Your task to perform on an android device: turn off javascript in the chrome app Image 0: 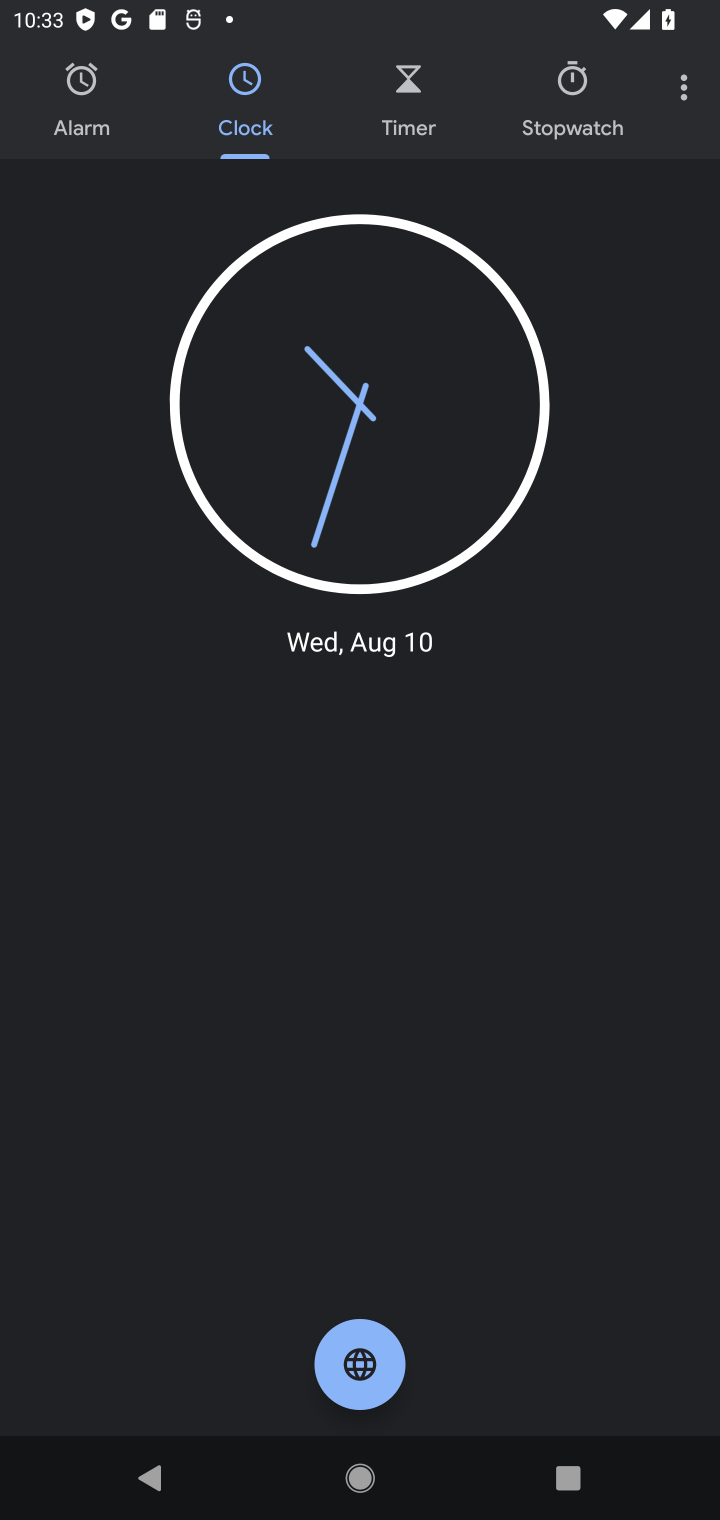
Step 0: press home button
Your task to perform on an android device: turn off javascript in the chrome app Image 1: 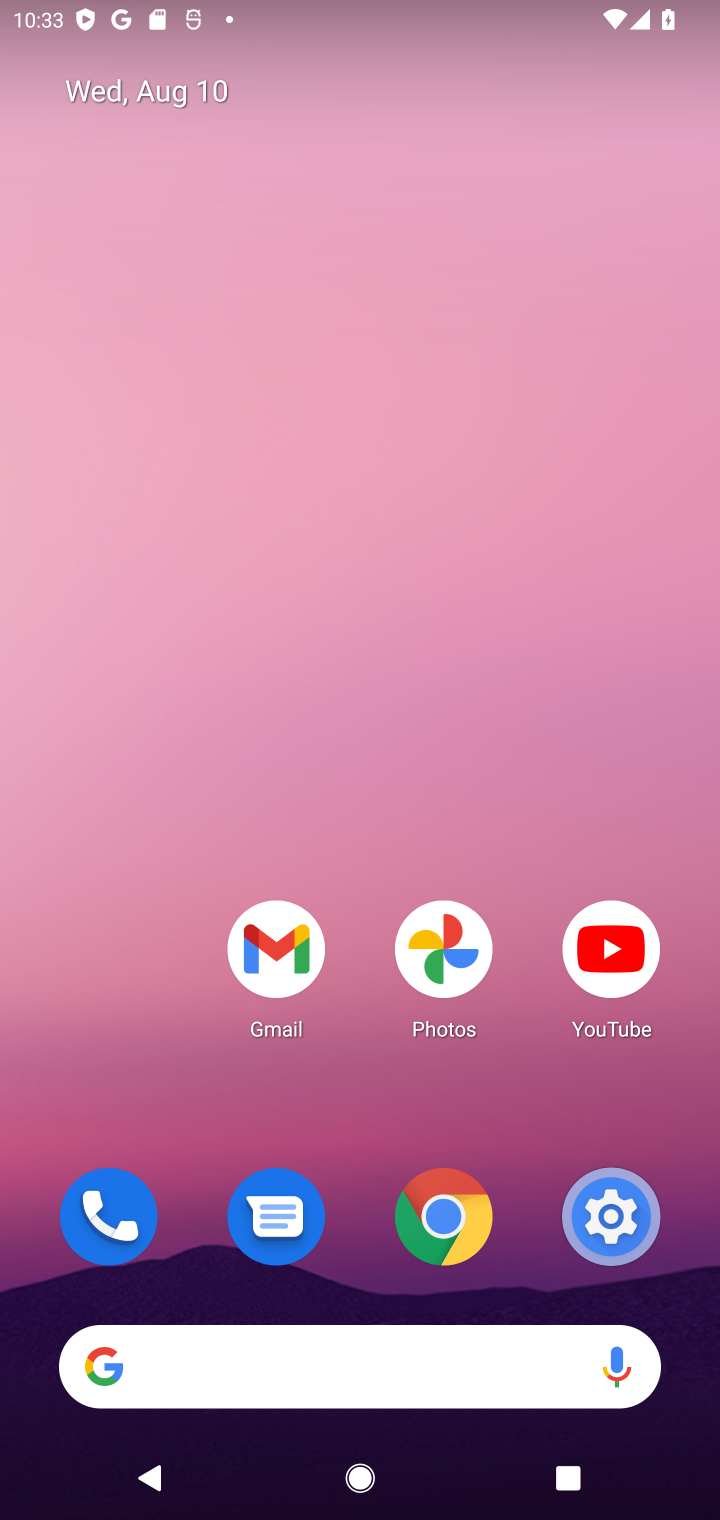
Step 1: click (444, 1213)
Your task to perform on an android device: turn off javascript in the chrome app Image 2: 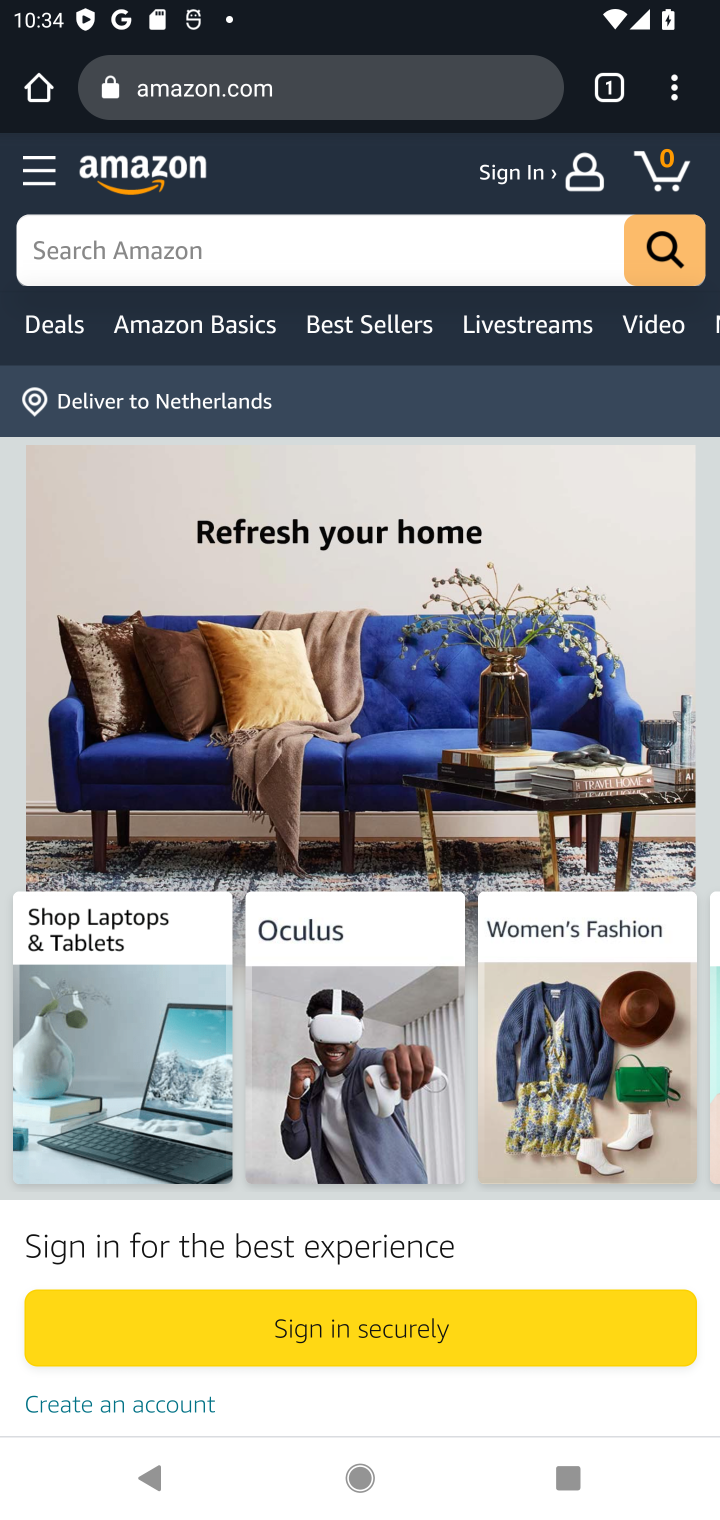
Step 2: click (664, 83)
Your task to perform on an android device: turn off javascript in the chrome app Image 3: 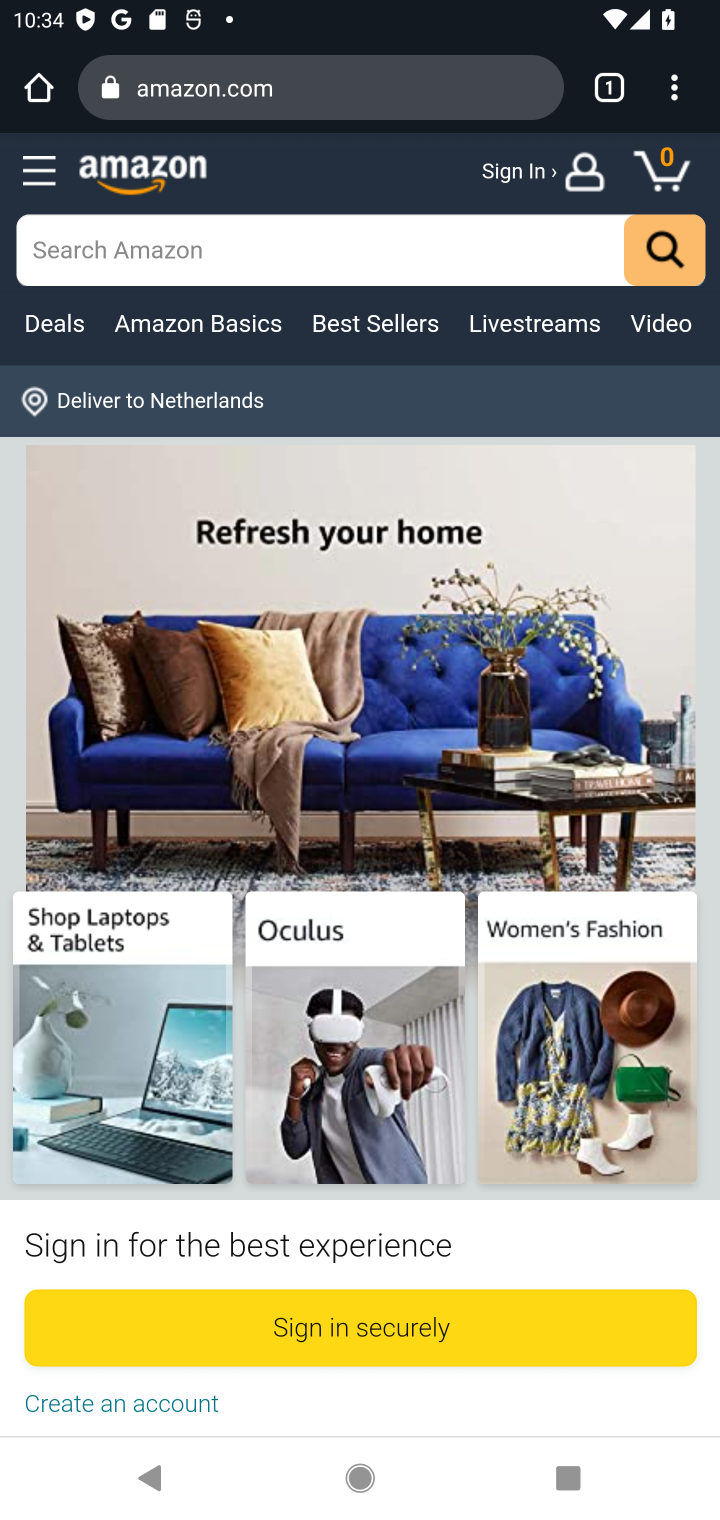
Step 3: click (664, 83)
Your task to perform on an android device: turn off javascript in the chrome app Image 4: 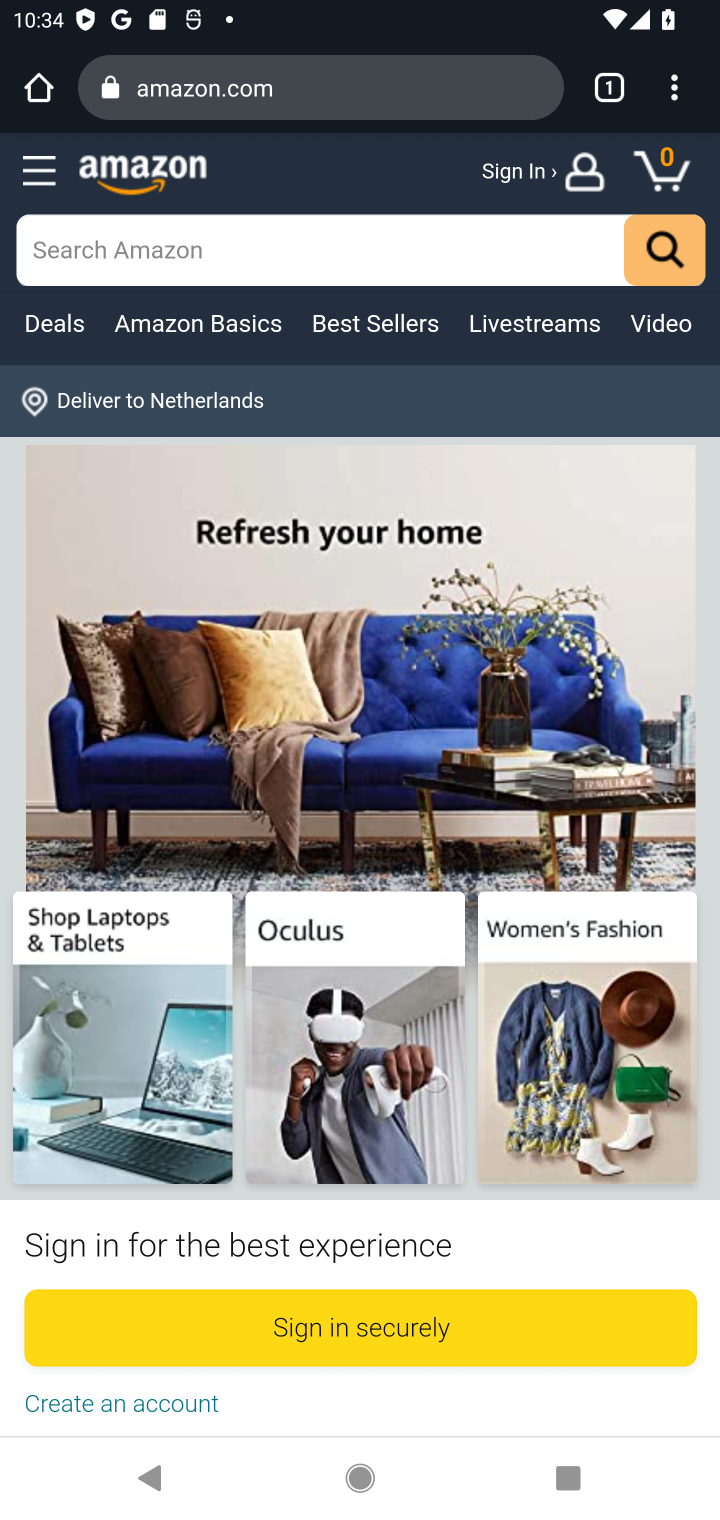
Step 4: click (670, 99)
Your task to perform on an android device: turn off javascript in the chrome app Image 5: 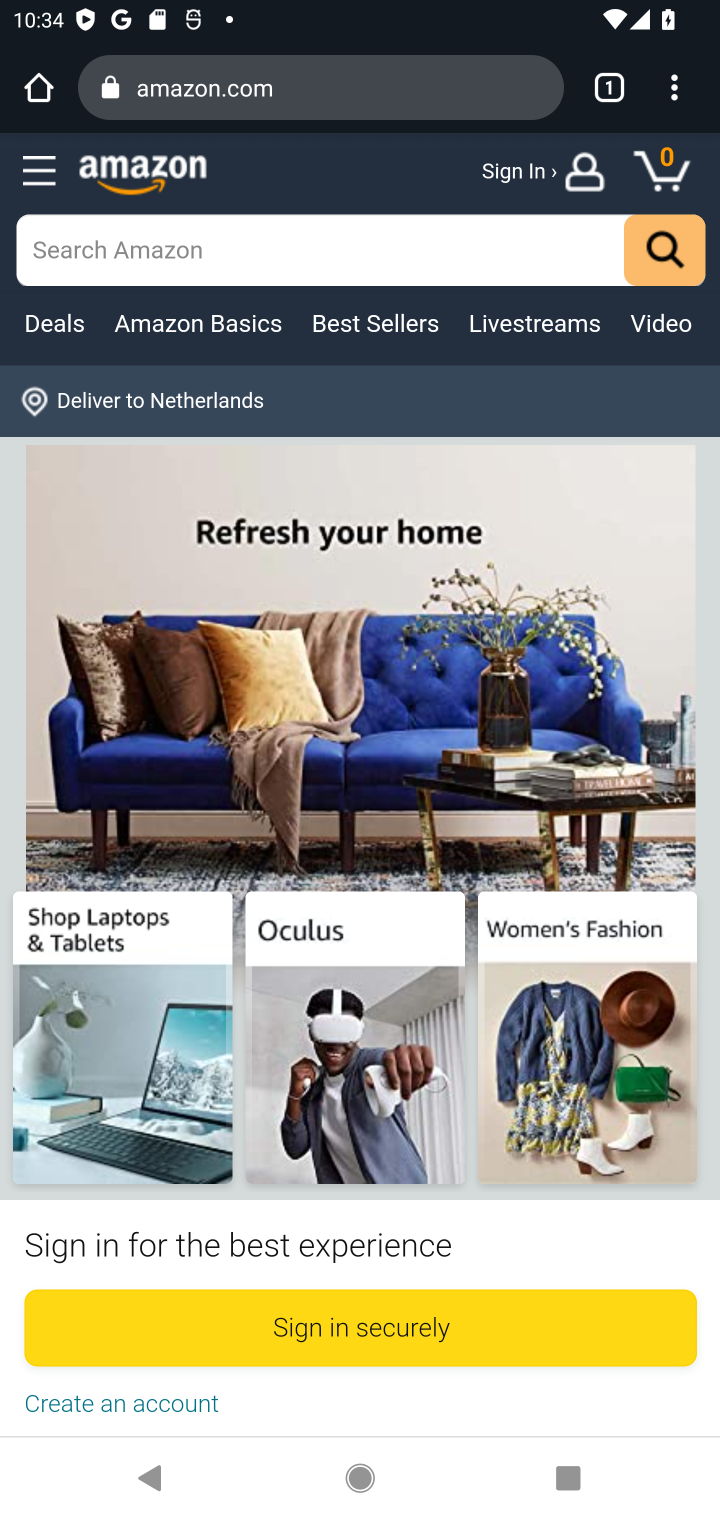
Step 5: click (679, 86)
Your task to perform on an android device: turn off javascript in the chrome app Image 6: 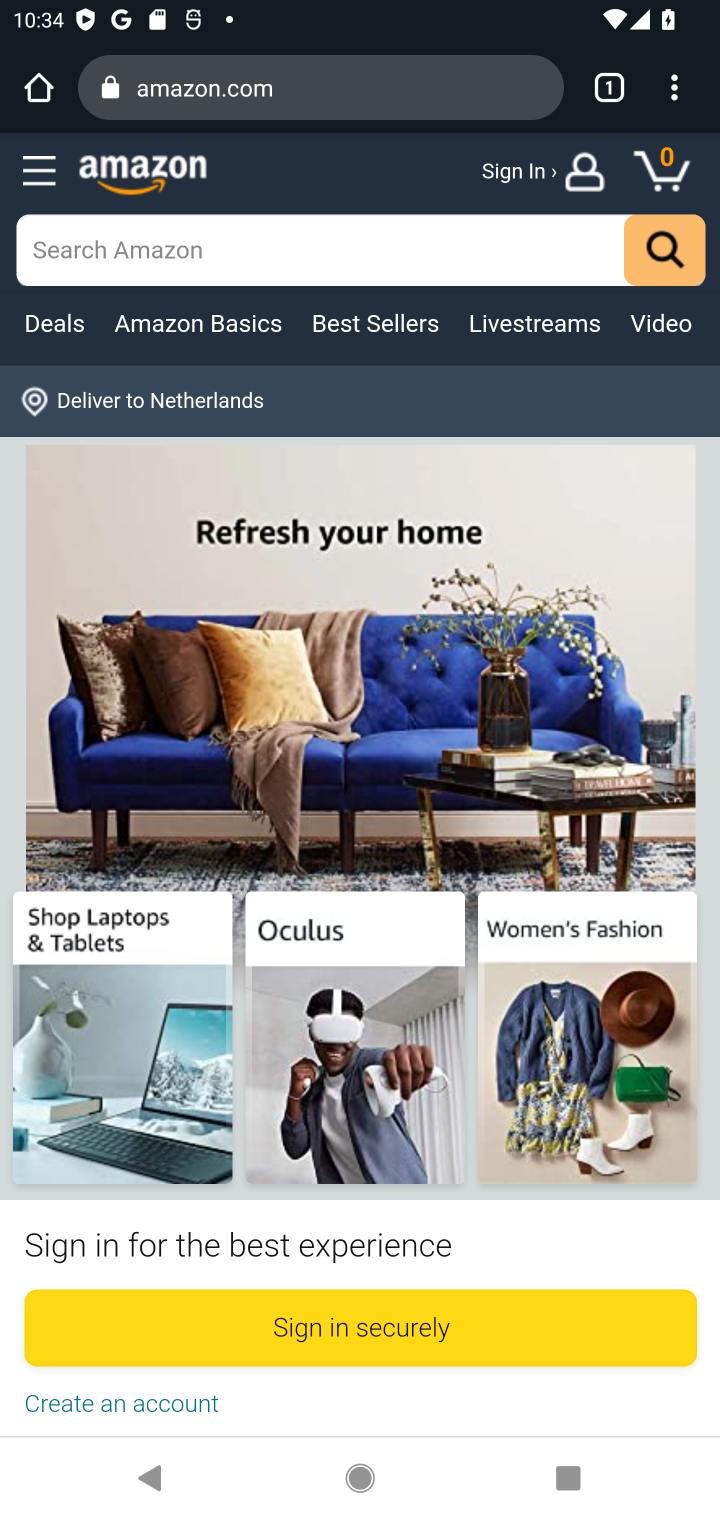
Step 6: click (679, 86)
Your task to perform on an android device: turn off javascript in the chrome app Image 7: 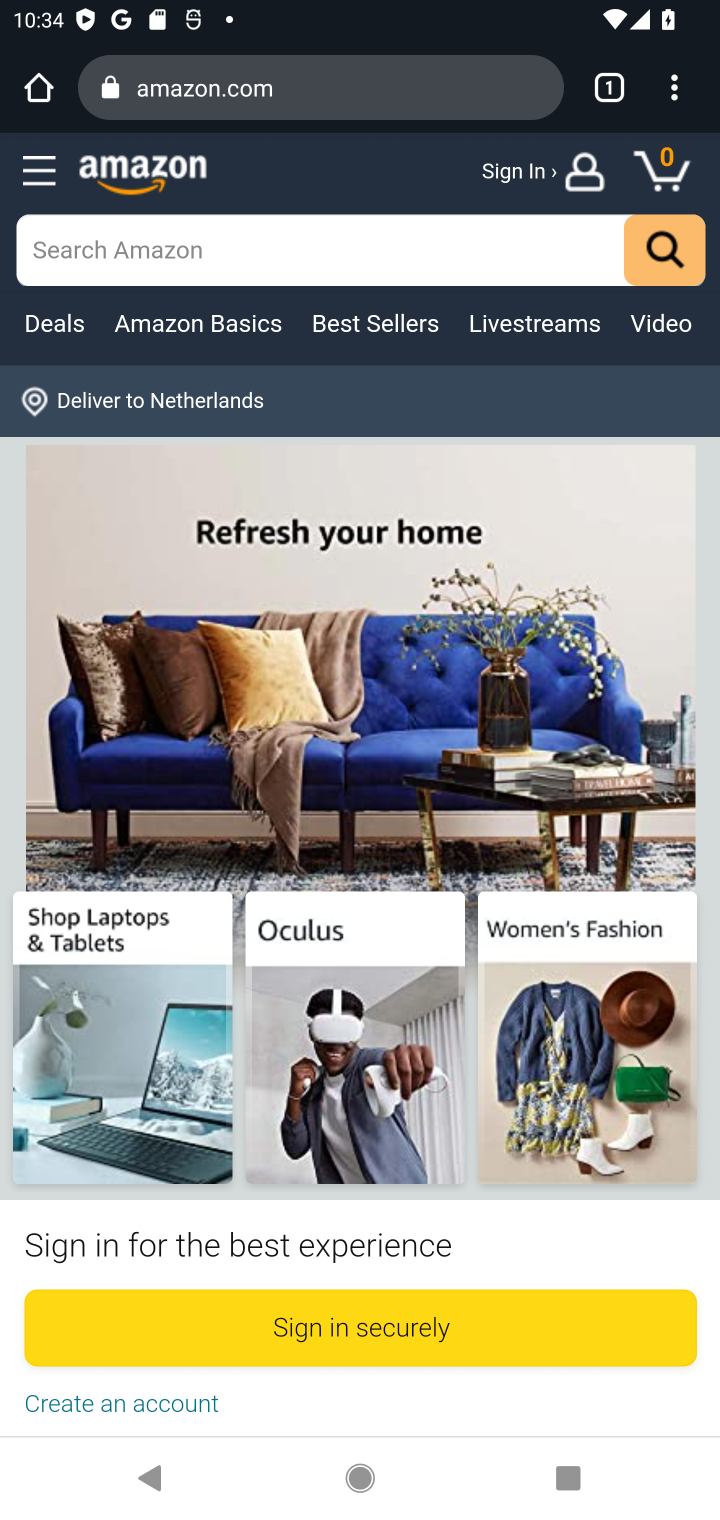
Step 7: click (679, 86)
Your task to perform on an android device: turn off javascript in the chrome app Image 8: 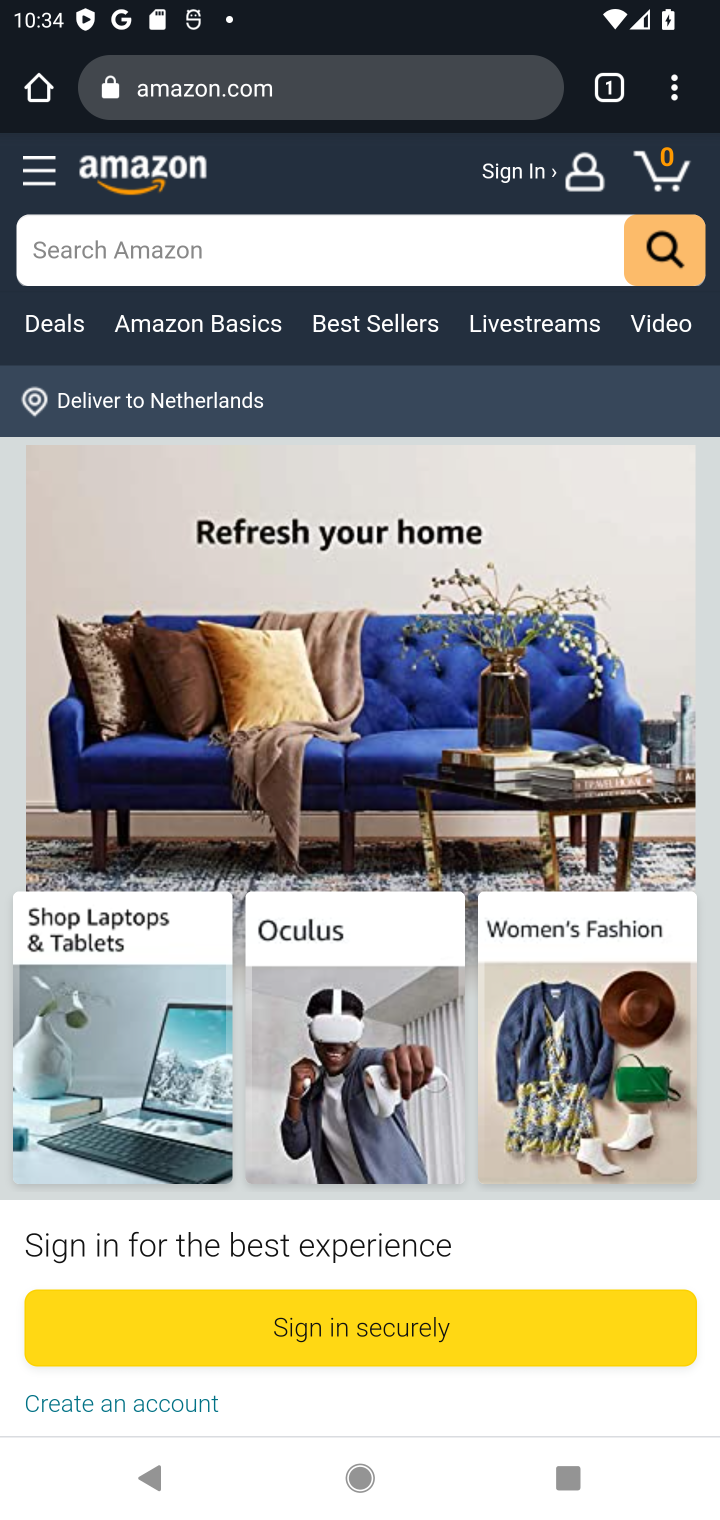
Step 8: click (679, 86)
Your task to perform on an android device: turn off javascript in the chrome app Image 9: 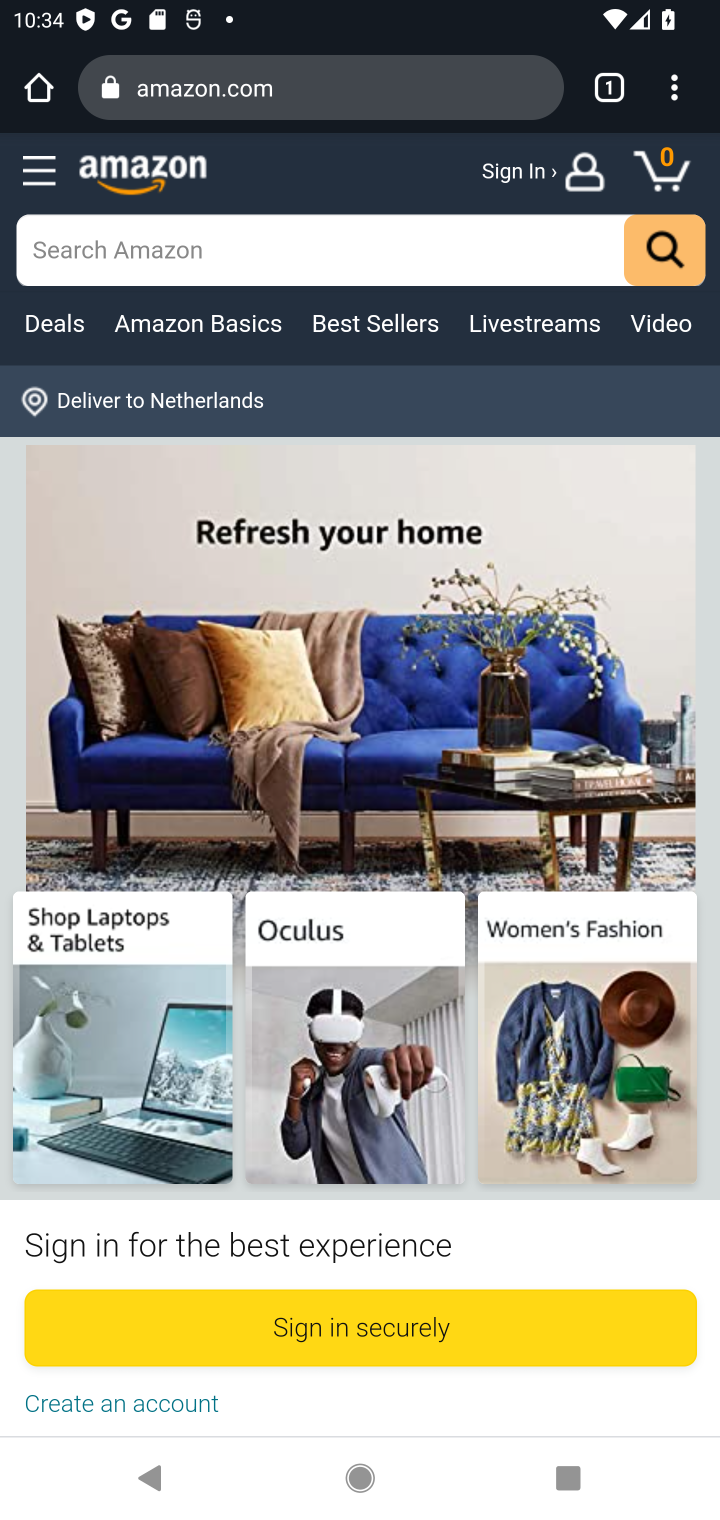
Step 9: click (679, 86)
Your task to perform on an android device: turn off javascript in the chrome app Image 10: 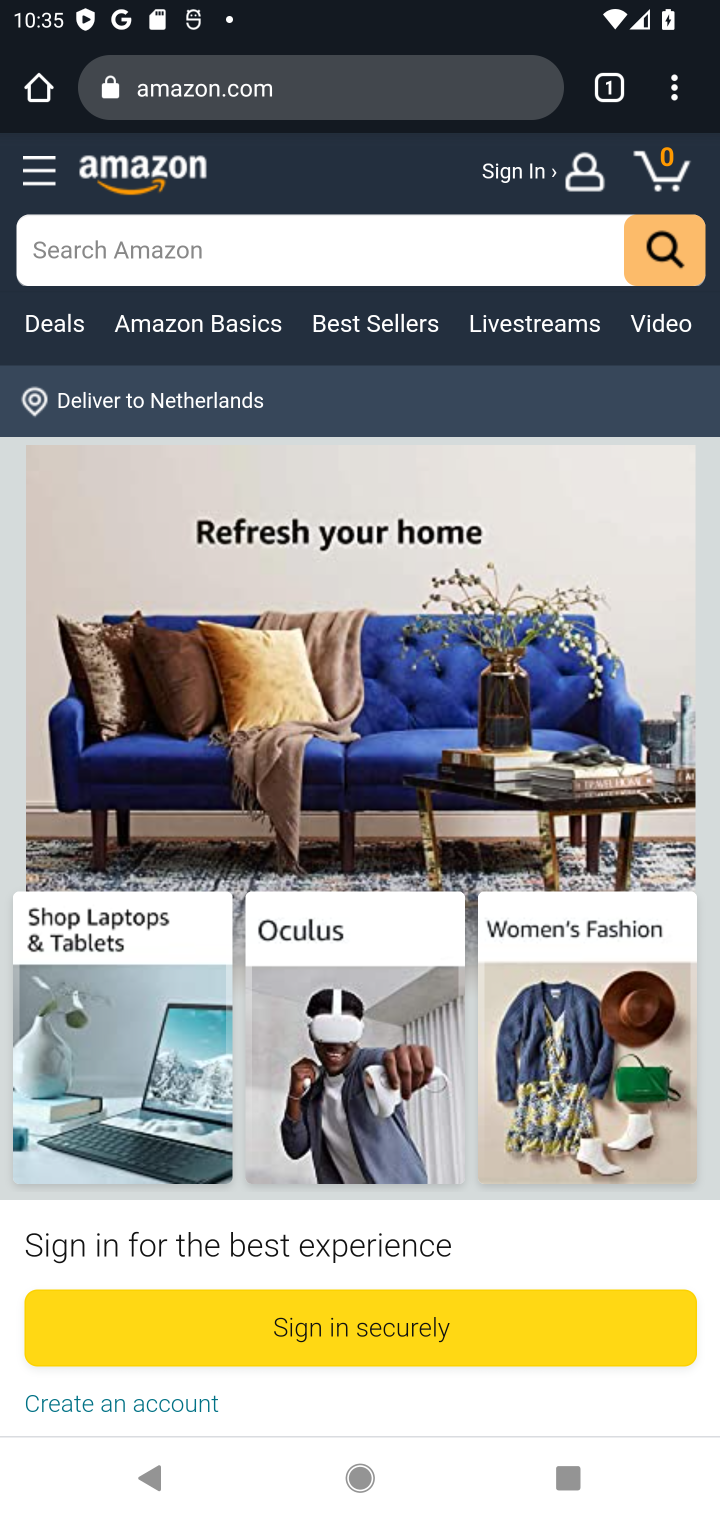
Step 10: click (677, 86)
Your task to perform on an android device: turn off javascript in the chrome app Image 11: 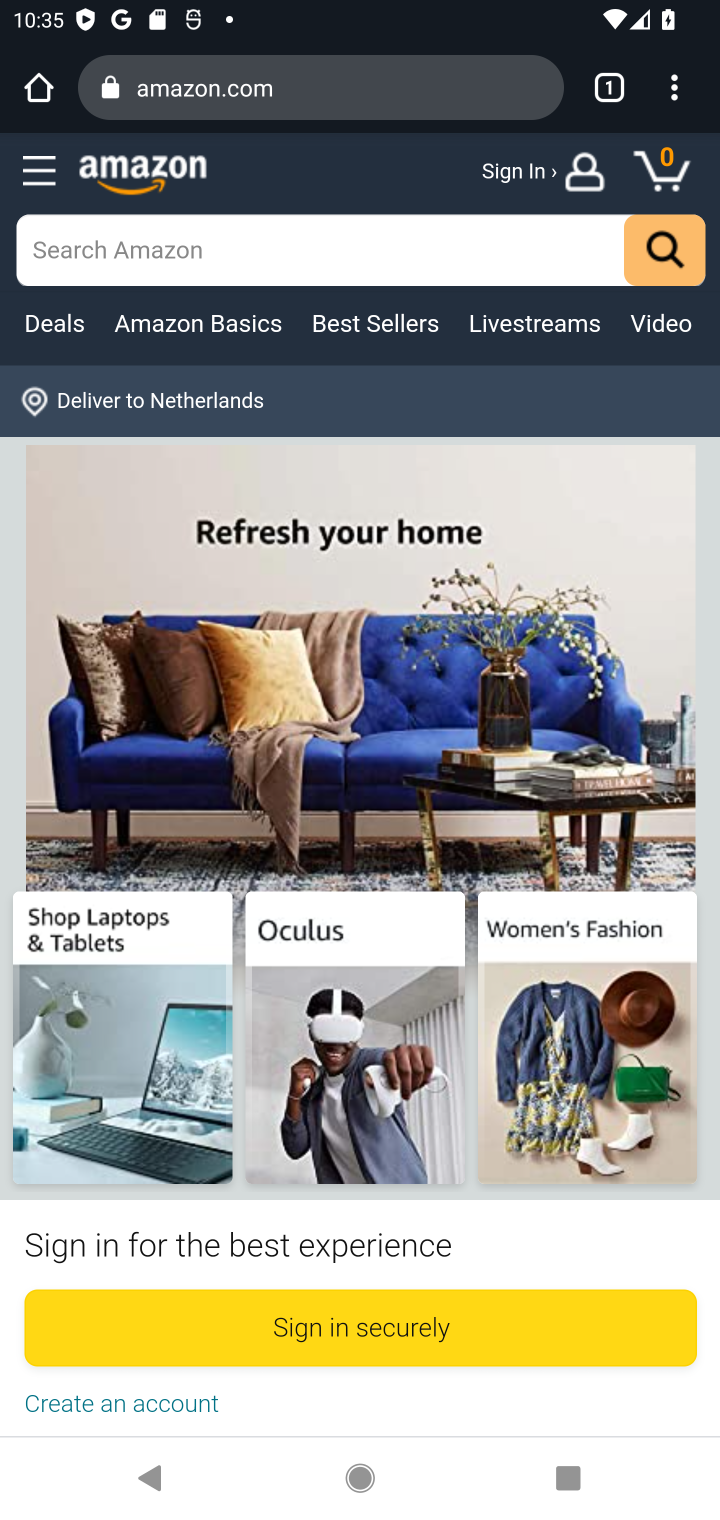
Step 11: click (677, 86)
Your task to perform on an android device: turn off javascript in the chrome app Image 12: 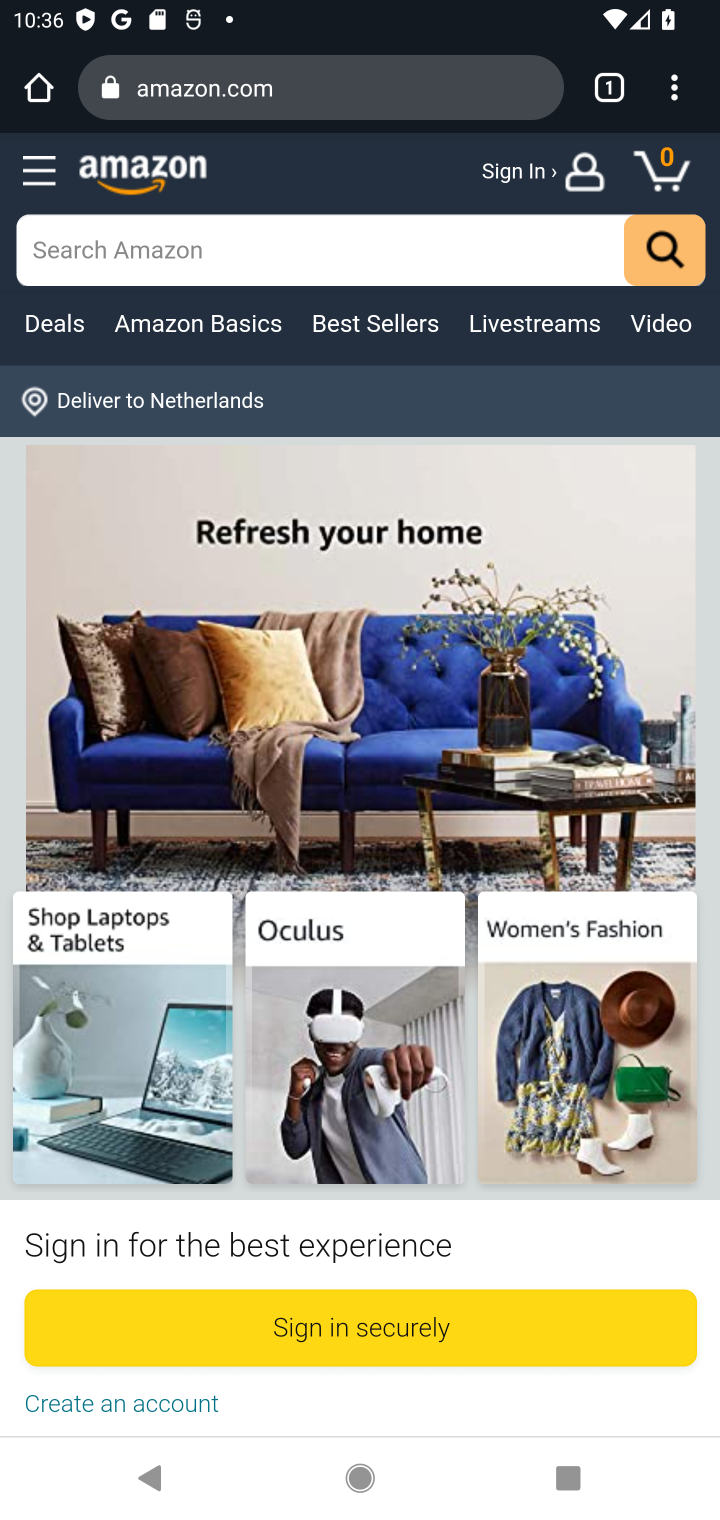
Step 12: click (680, 80)
Your task to perform on an android device: turn off javascript in the chrome app Image 13: 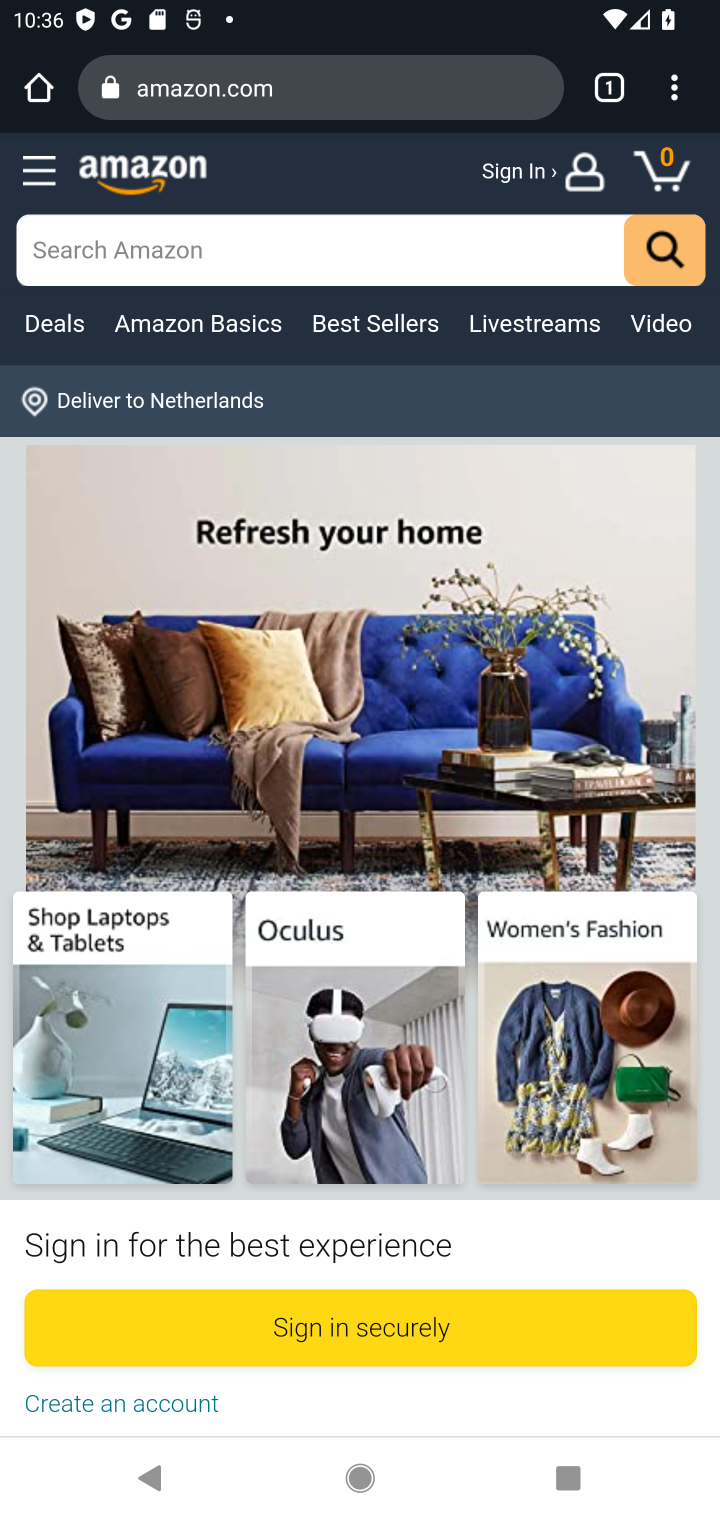
Step 13: click (680, 79)
Your task to perform on an android device: turn off javascript in the chrome app Image 14: 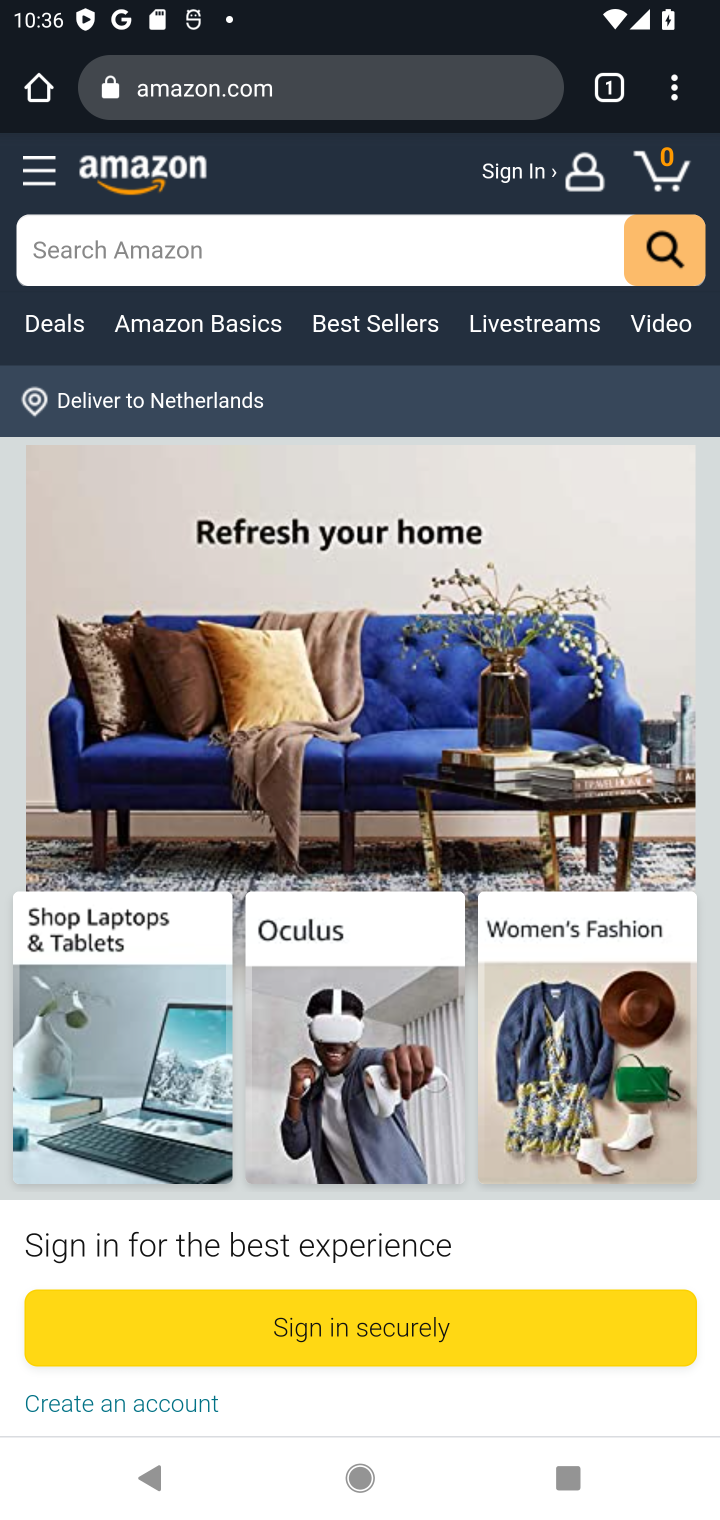
Step 14: click (680, 84)
Your task to perform on an android device: turn off javascript in the chrome app Image 15: 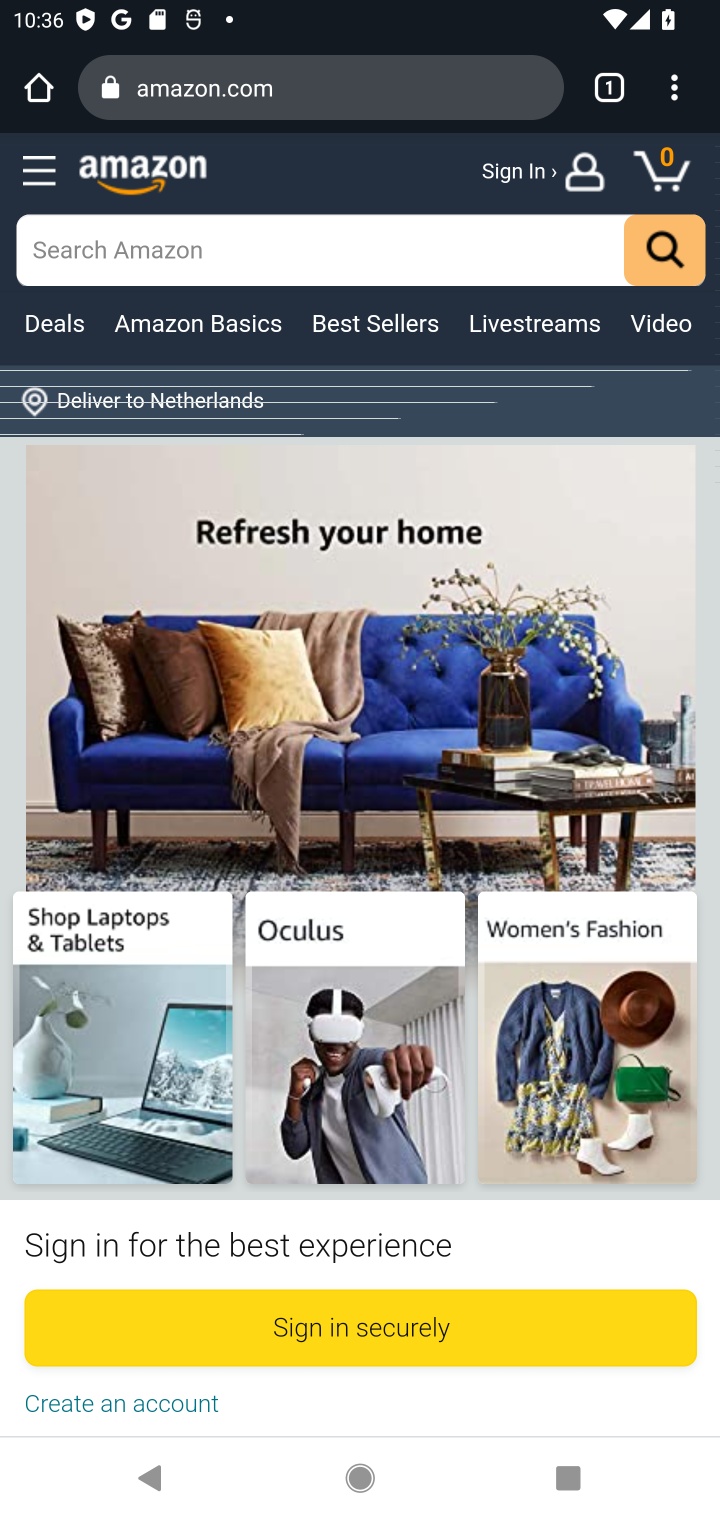
Step 15: click (675, 99)
Your task to perform on an android device: turn off javascript in the chrome app Image 16: 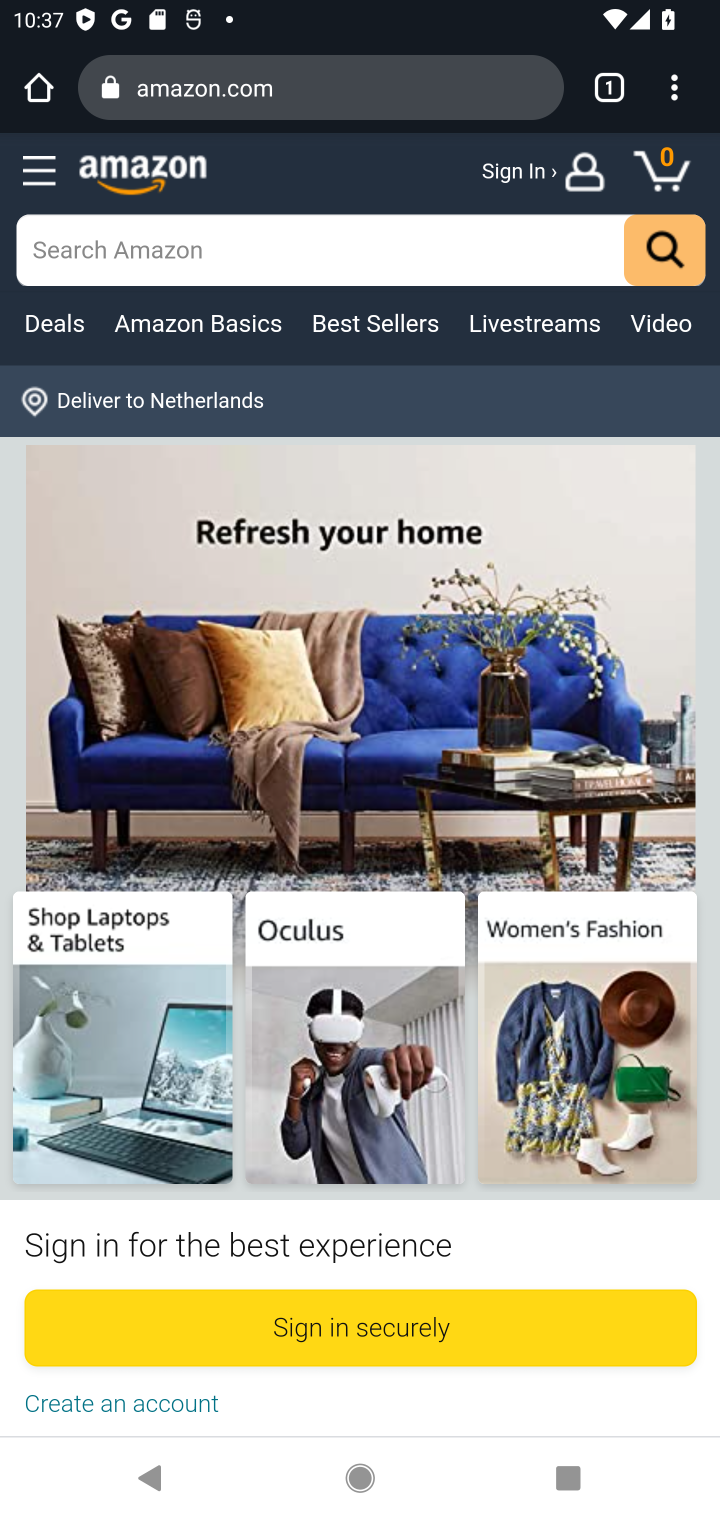
Step 16: click (673, 93)
Your task to perform on an android device: turn off javascript in the chrome app Image 17: 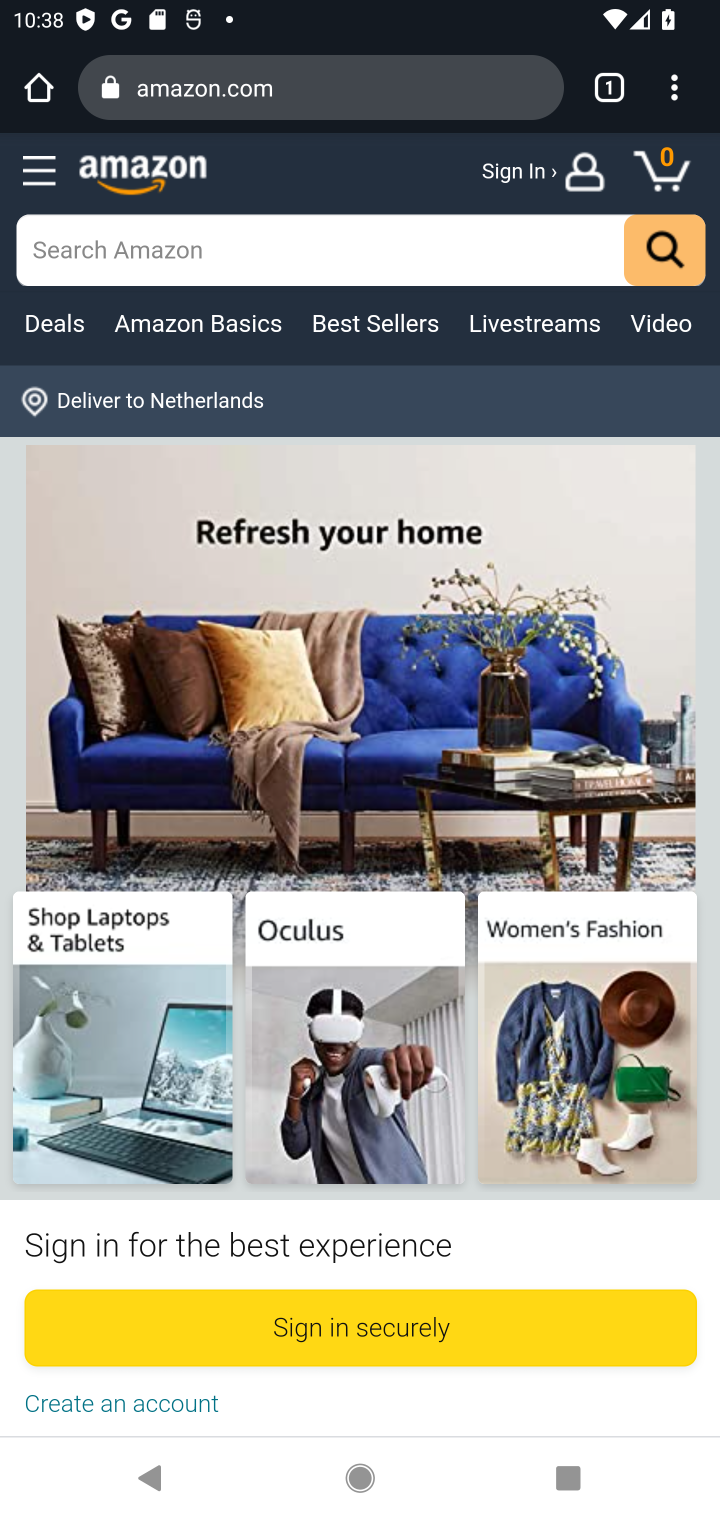
Step 17: click (670, 93)
Your task to perform on an android device: turn off javascript in the chrome app Image 18: 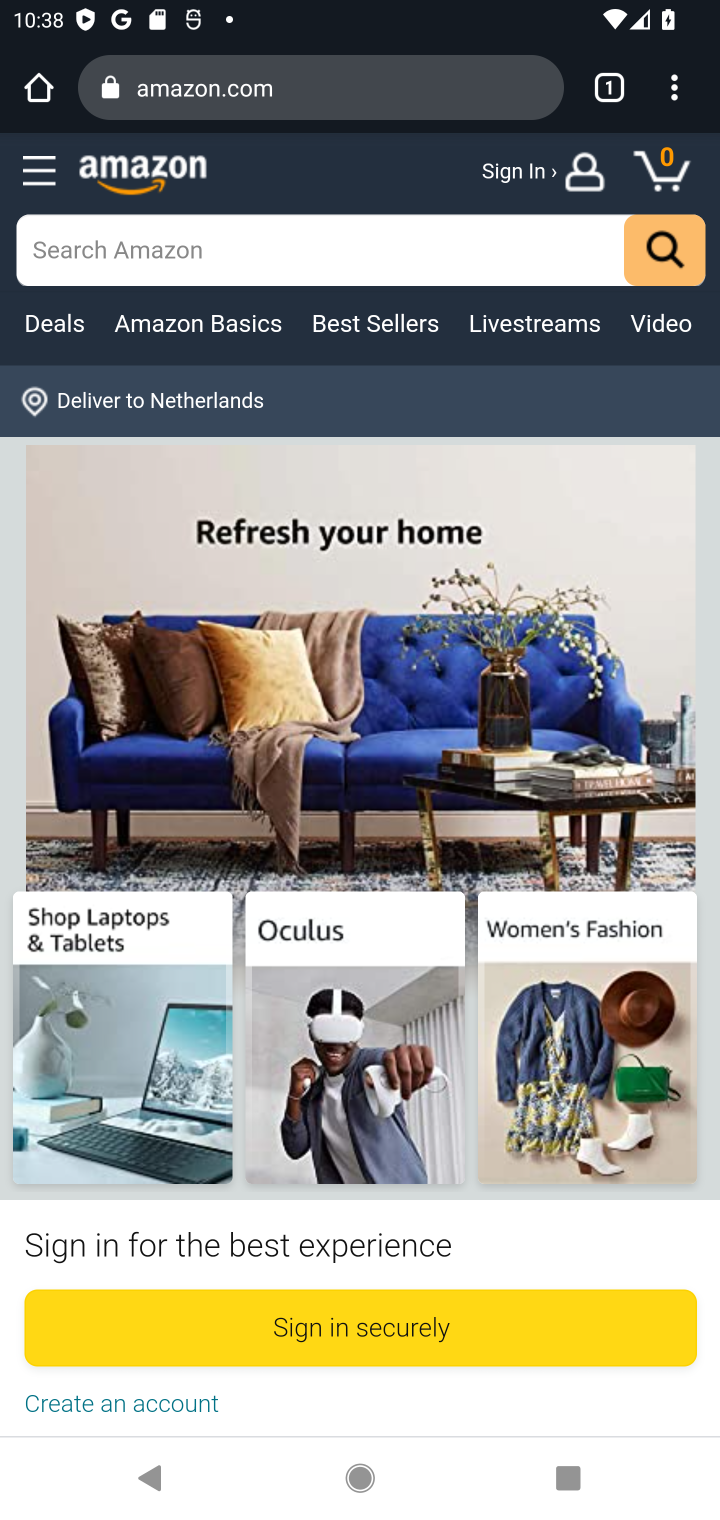
Step 18: click (670, 93)
Your task to perform on an android device: turn off javascript in the chrome app Image 19: 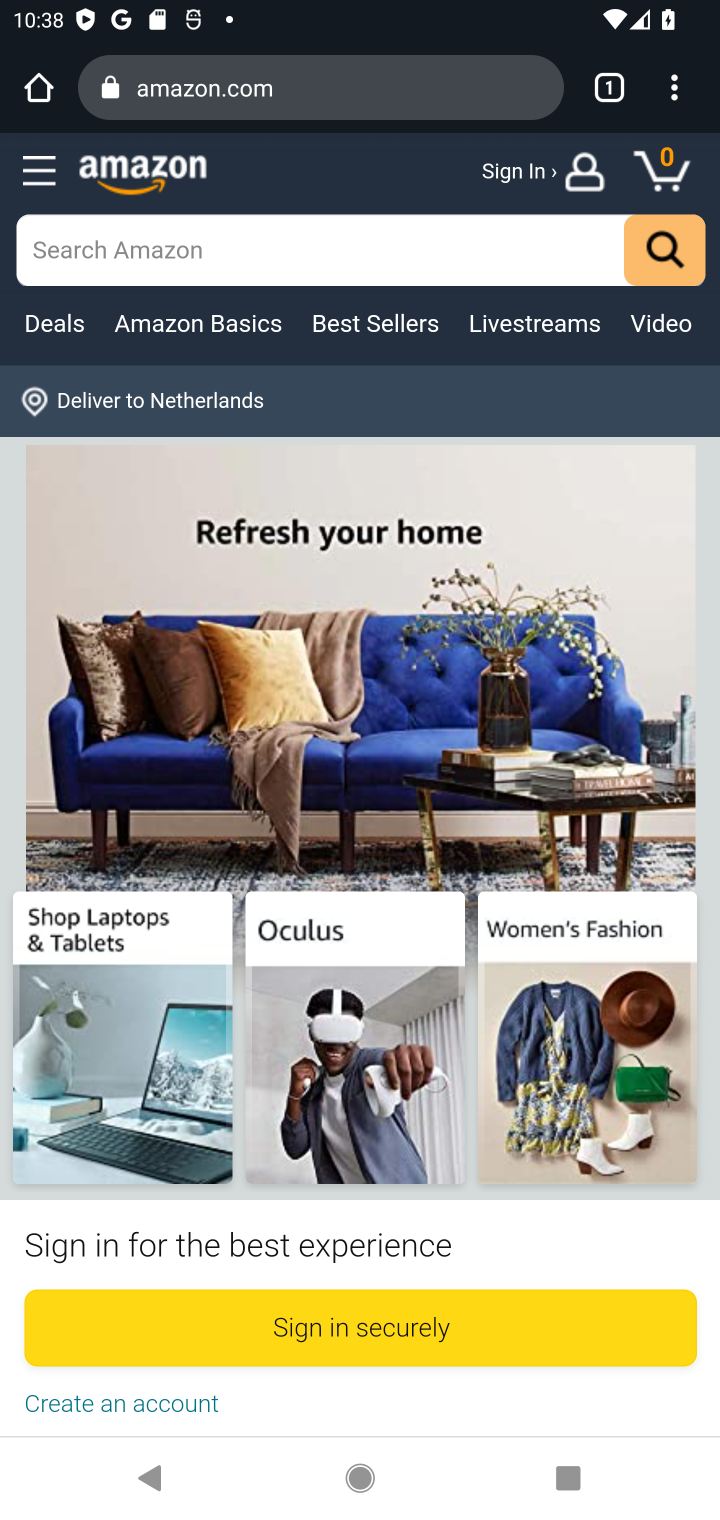
Step 19: click (669, 98)
Your task to perform on an android device: turn off javascript in the chrome app Image 20: 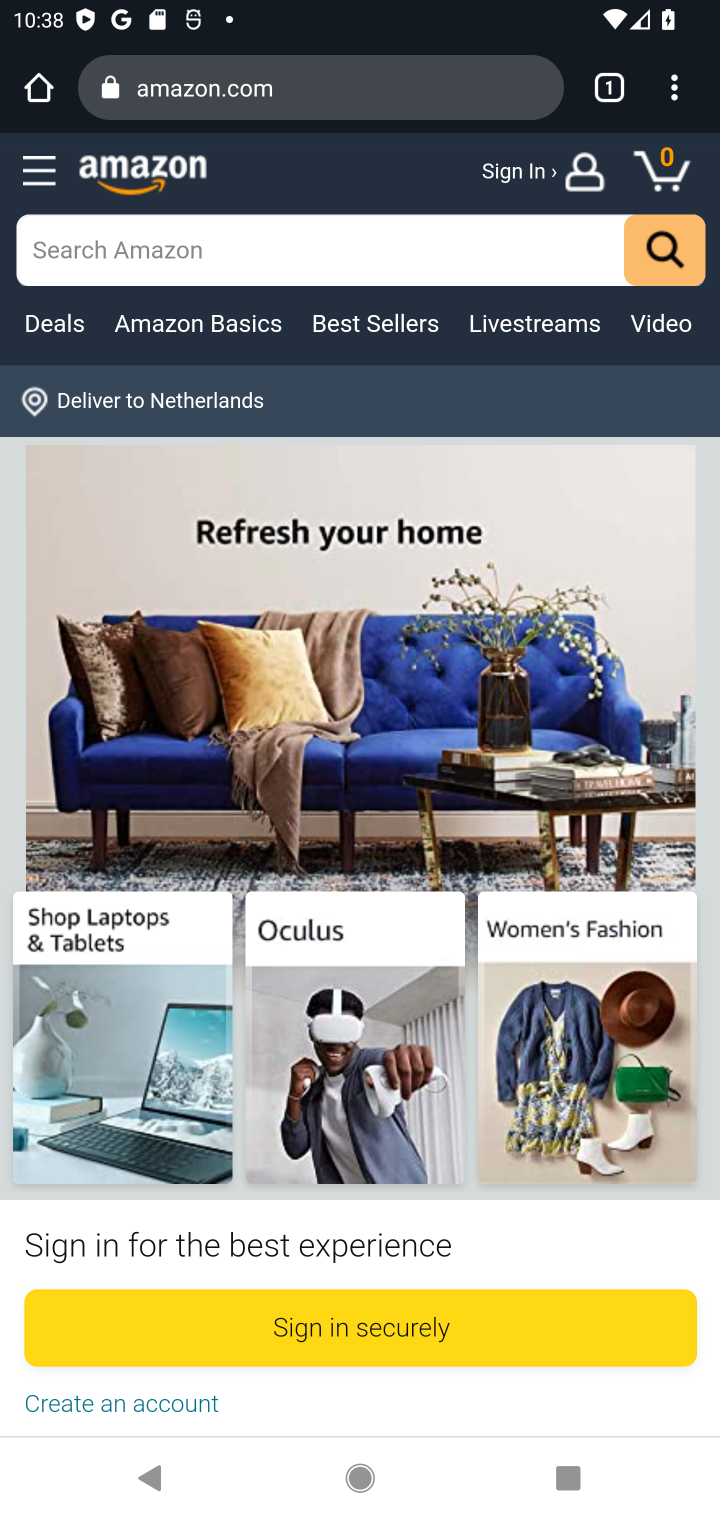
Step 20: click (680, 96)
Your task to perform on an android device: turn off javascript in the chrome app Image 21: 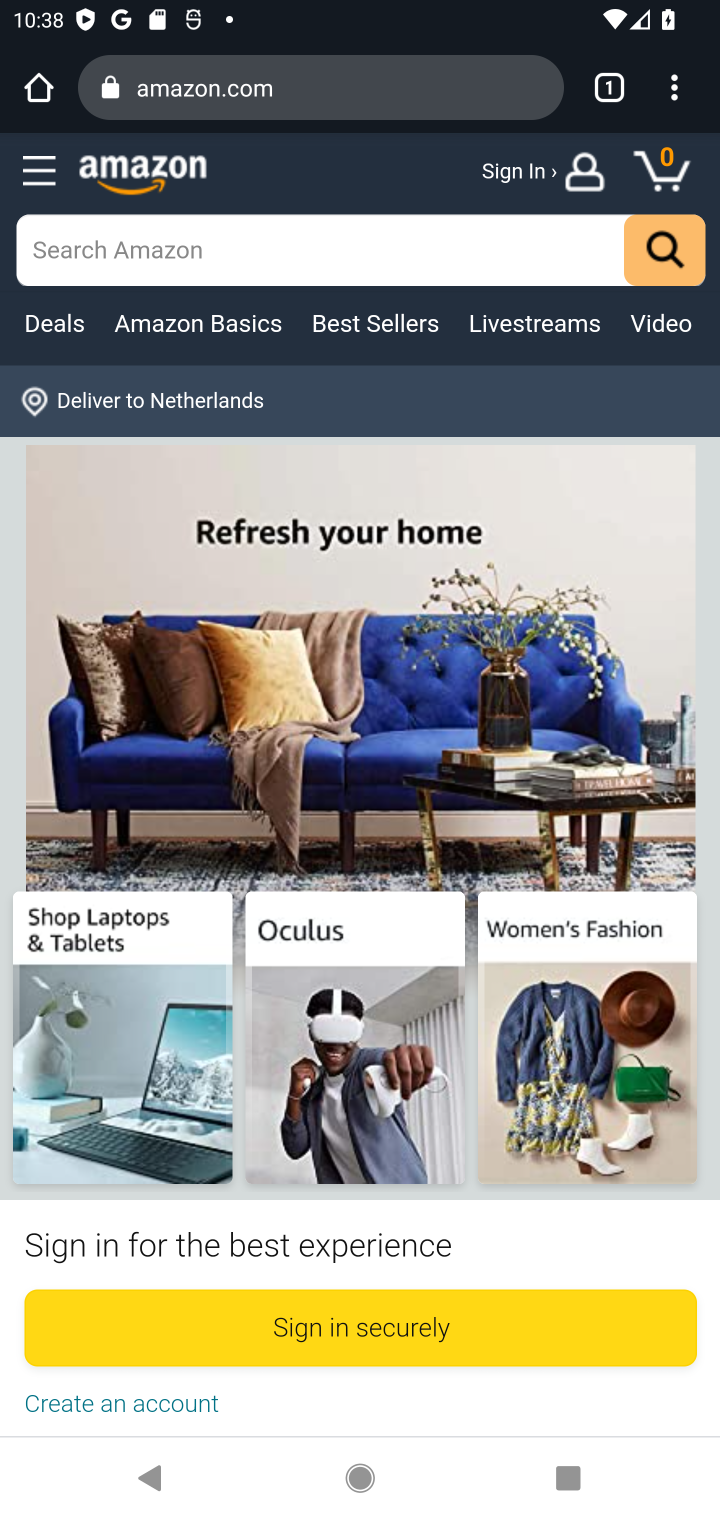
Step 21: click (680, 96)
Your task to perform on an android device: turn off javascript in the chrome app Image 22: 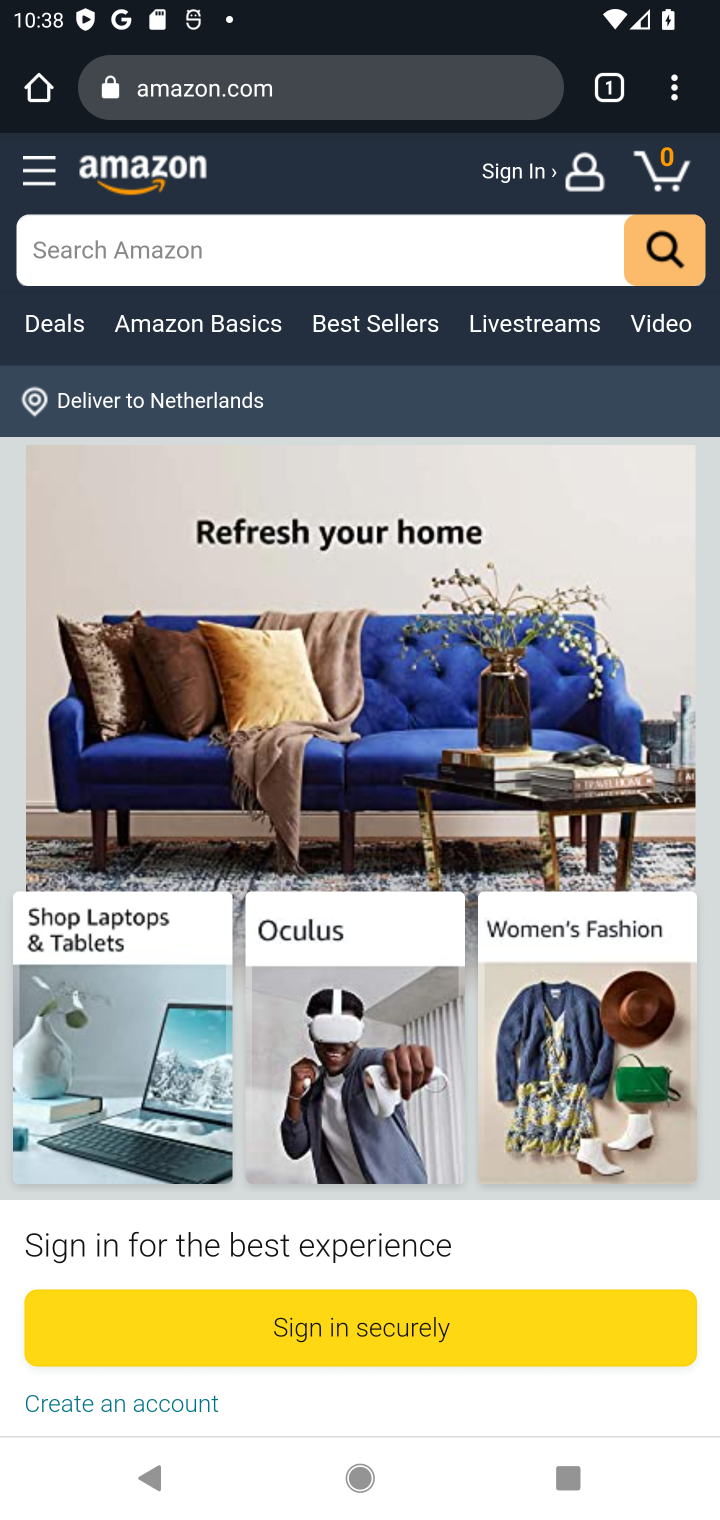
Step 22: click (680, 96)
Your task to perform on an android device: turn off javascript in the chrome app Image 23: 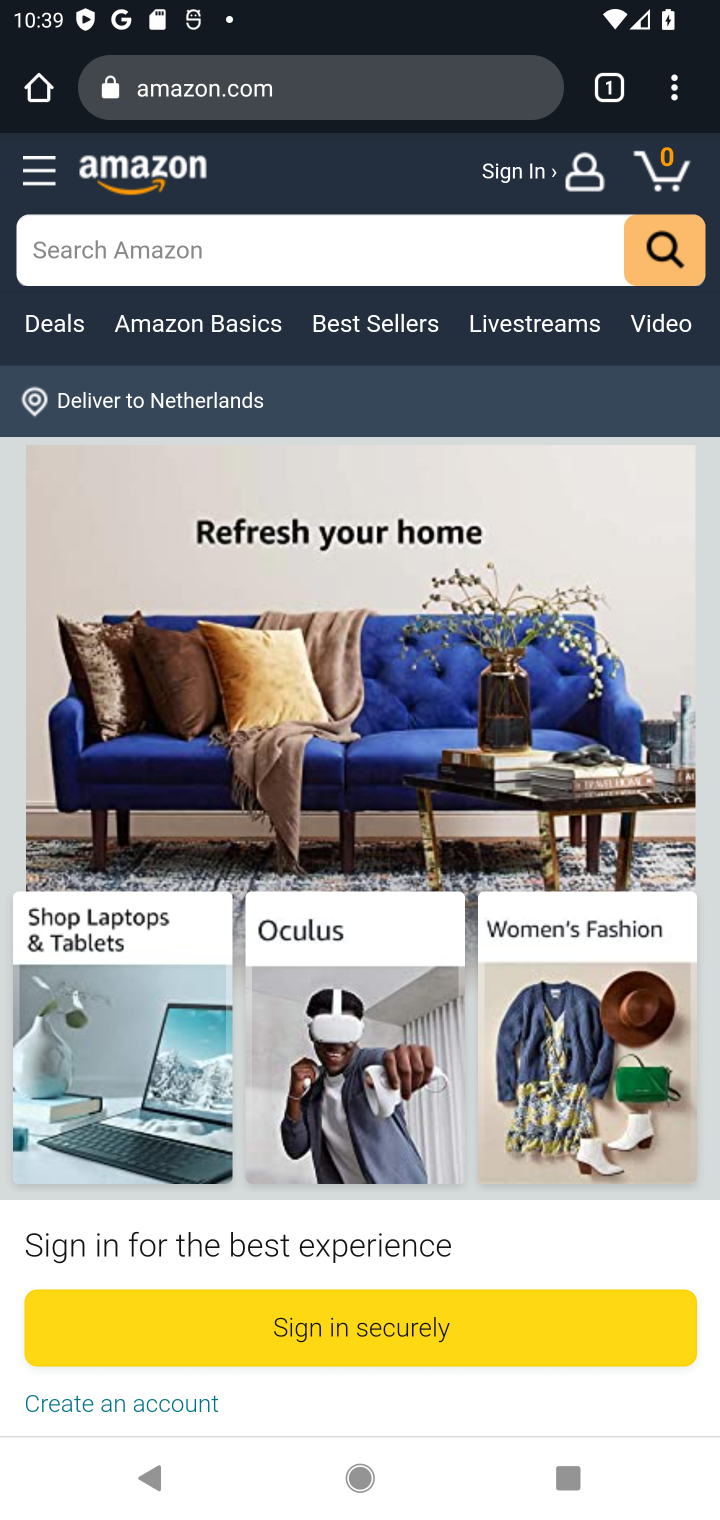
Step 23: click (679, 93)
Your task to perform on an android device: turn off javascript in the chrome app Image 24: 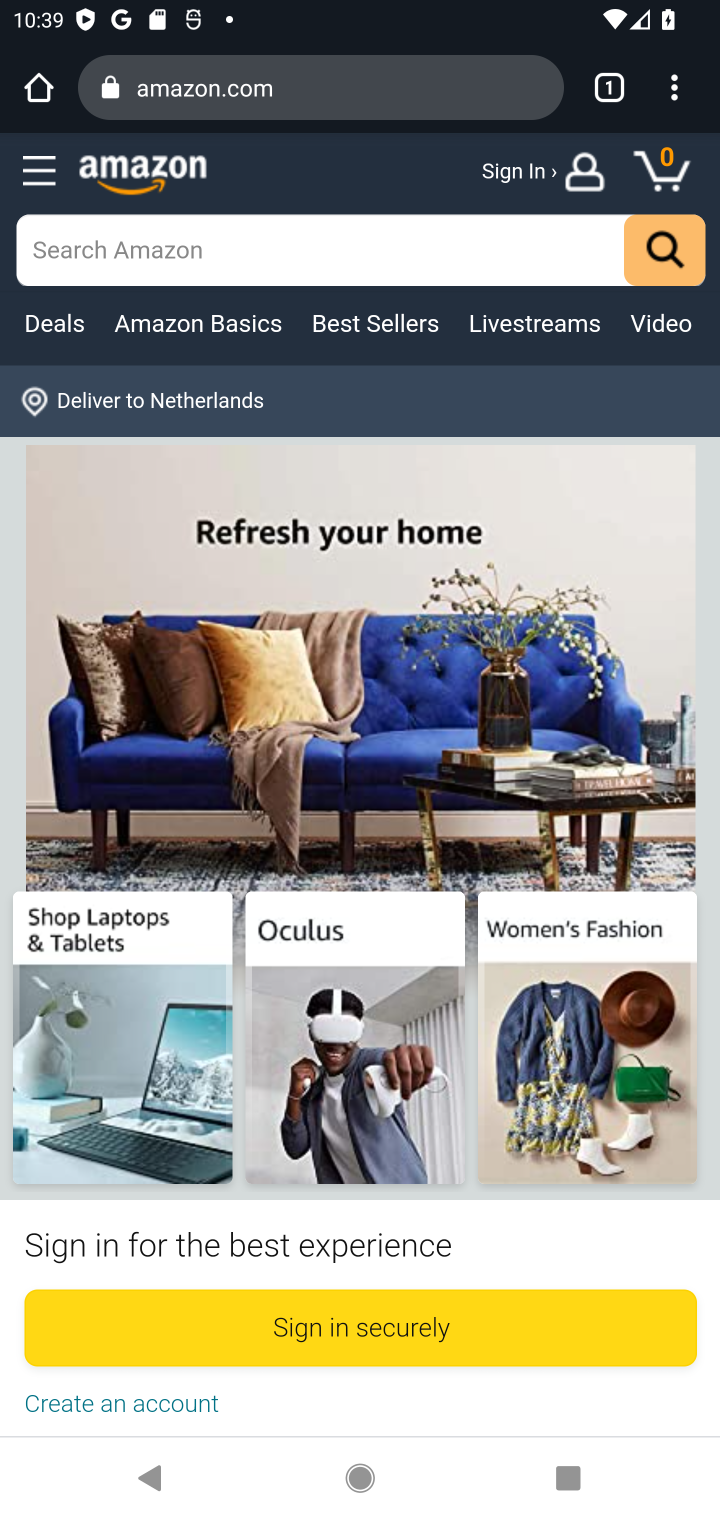
Step 24: click (670, 92)
Your task to perform on an android device: turn off javascript in the chrome app Image 25: 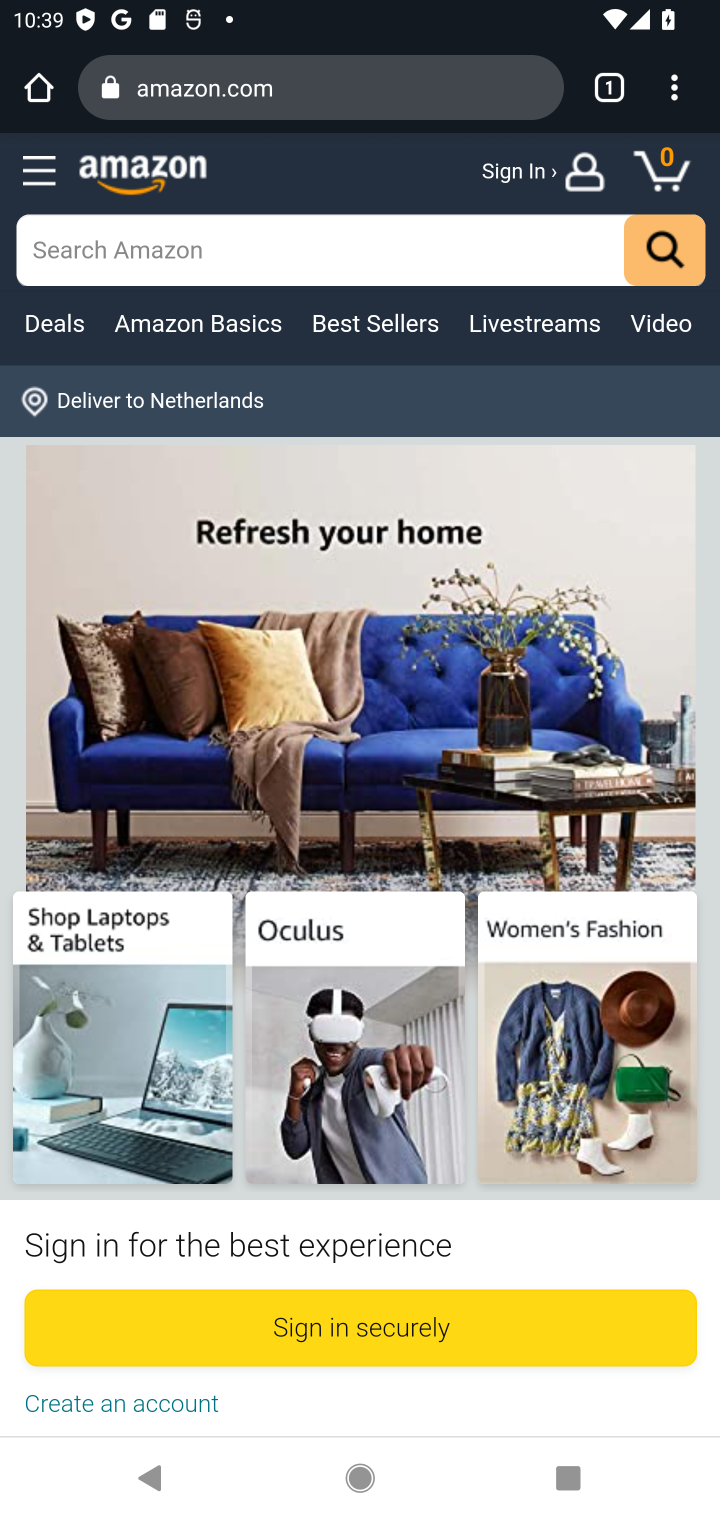
Step 25: click (670, 92)
Your task to perform on an android device: turn off javascript in the chrome app Image 26: 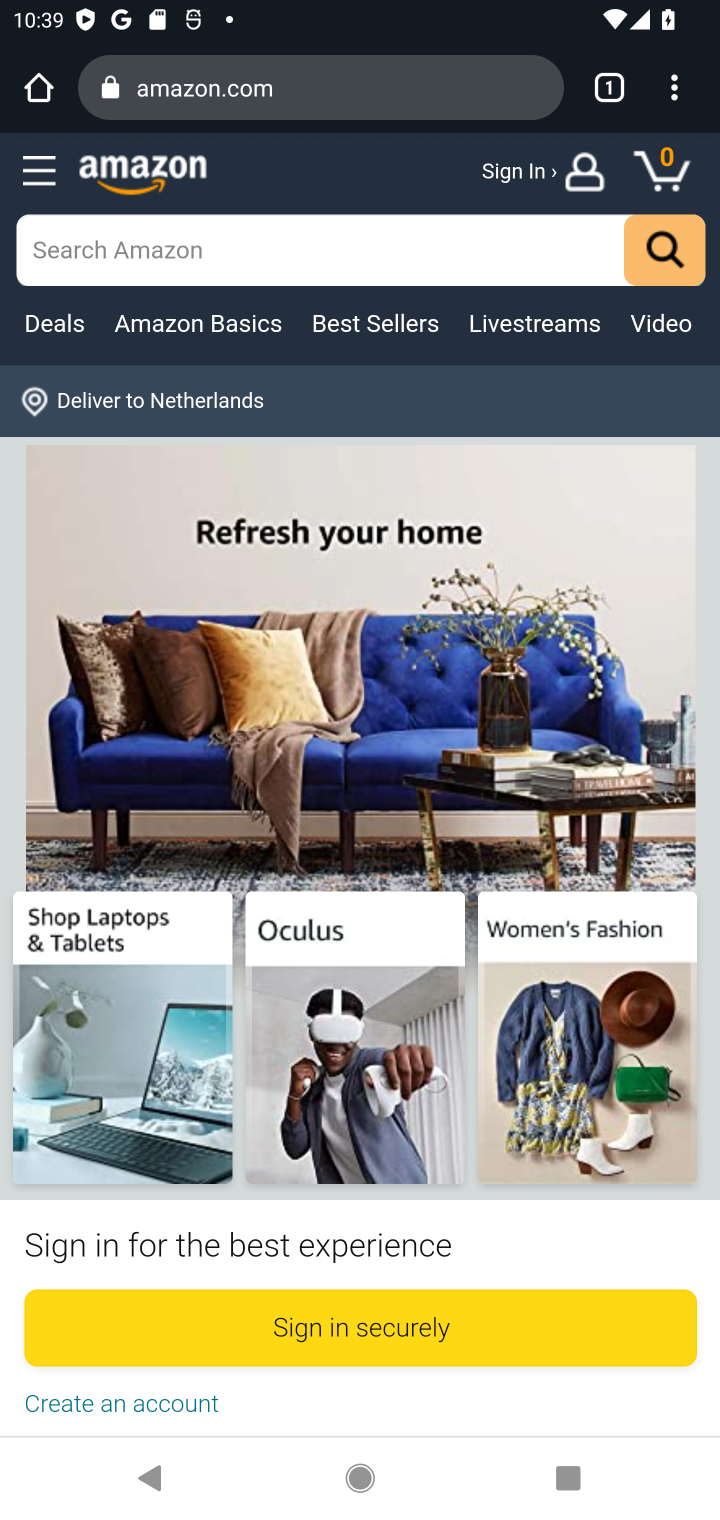
Step 26: click (676, 98)
Your task to perform on an android device: turn off javascript in the chrome app Image 27: 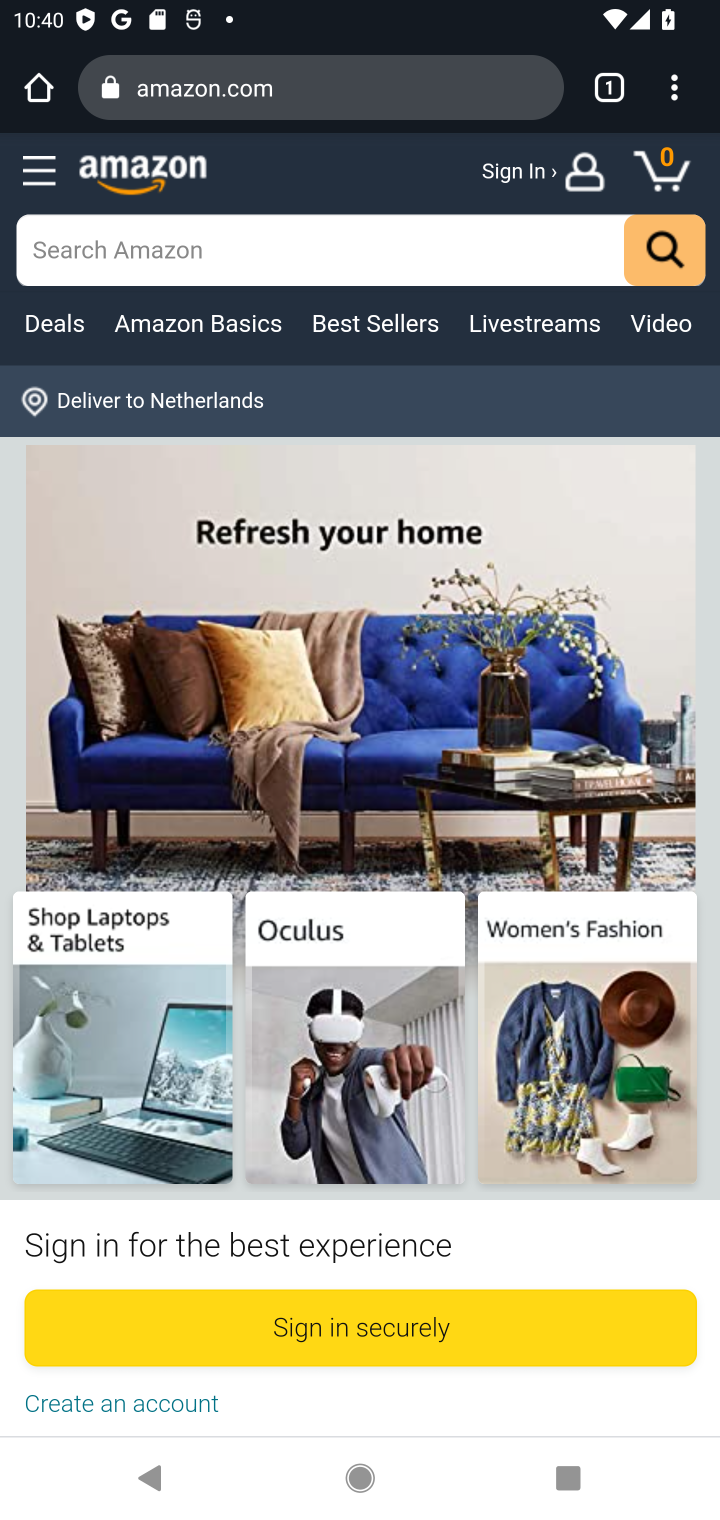
Step 27: click (684, 100)
Your task to perform on an android device: turn off javascript in the chrome app Image 28: 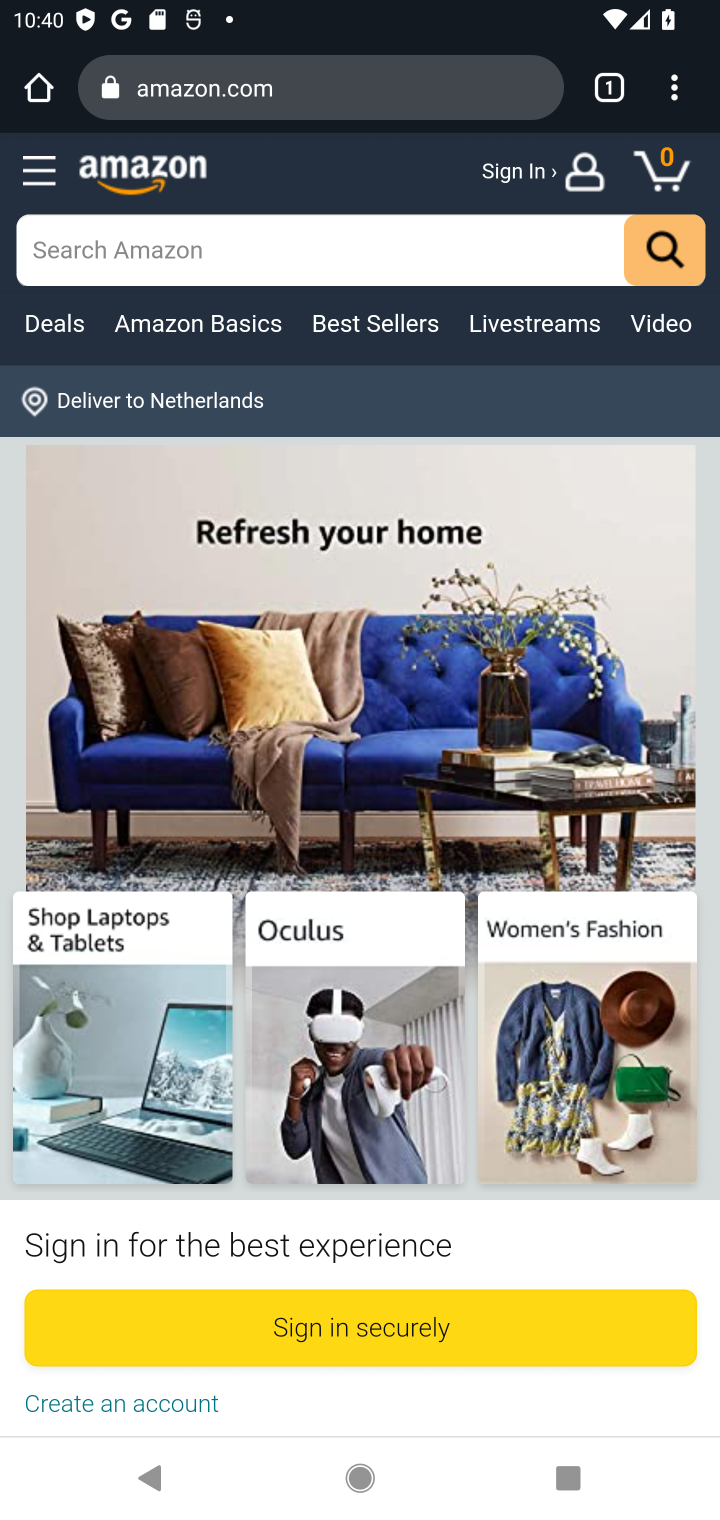
Step 28: task complete